Your task to perform on an android device: see sites visited before in the chrome app Image 0: 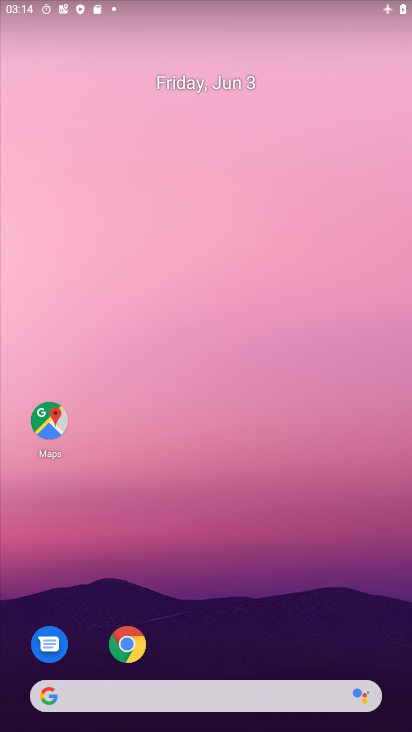
Step 0: click (137, 650)
Your task to perform on an android device: see sites visited before in the chrome app Image 1: 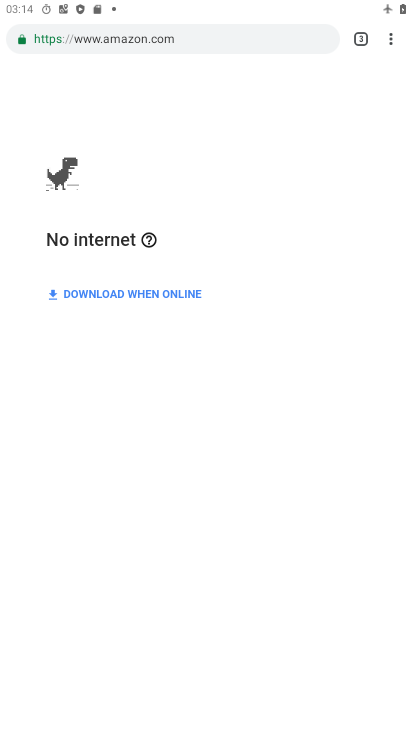
Step 1: task complete